Your task to perform on an android device: Open the map Image 0: 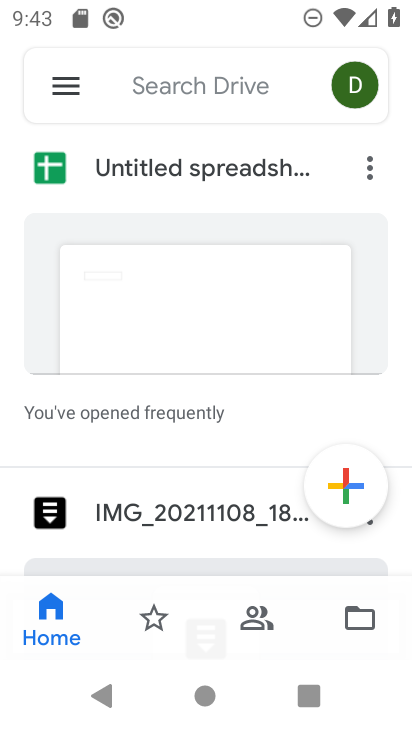
Step 0: press home button
Your task to perform on an android device: Open the map Image 1: 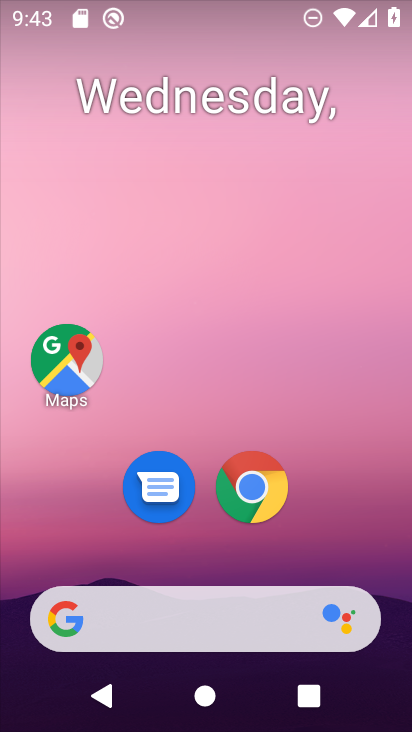
Step 1: drag from (237, 653) to (231, 128)
Your task to perform on an android device: Open the map Image 2: 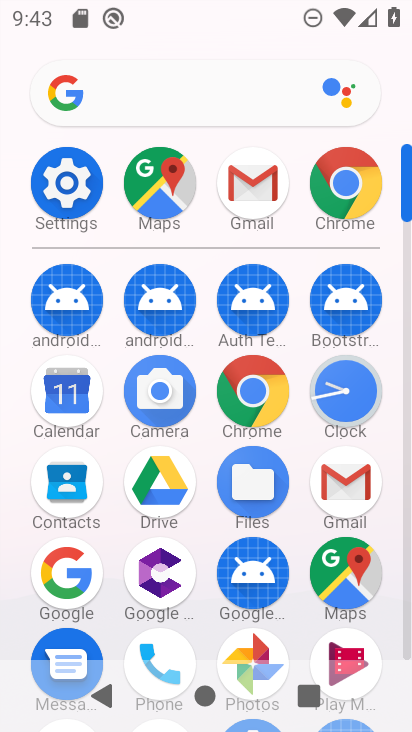
Step 2: click (180, 204)
Your task to perform on an android device: Open the map Image 3: 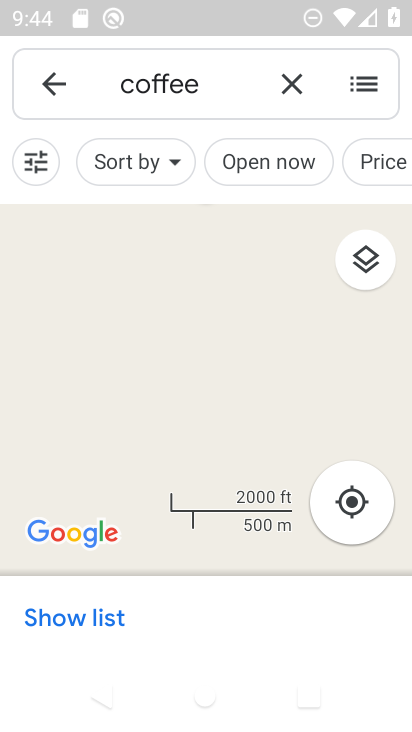
Step 3: click (57, 88)
Your task to perform on an android device: Open the map Image 4: 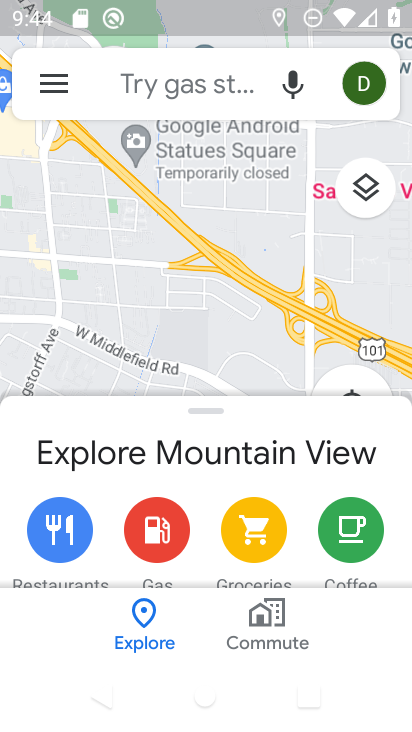
Step 4: click (259, 308)
Your task to perform on an android device: Open the map Image 5: 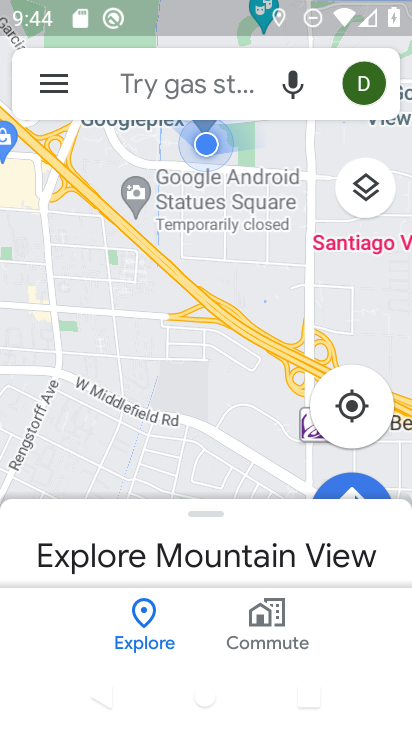
Step 5: task complete